Your task to perform on an android device: Clear the cart on walmart.com. Search for macbook pro on walmart.com, select the first entry, add it to the cart, then select checkout. Image 0: 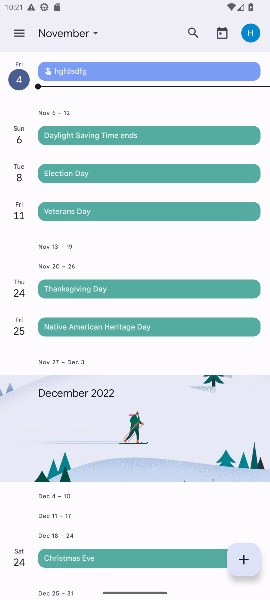
Step 0: press home button
Your task to perform on an android device: Clear the cart on walmart.com. Search for macbook pro on walmart.com, select the first entry, add it to the cart, then select checkout. Image 1: 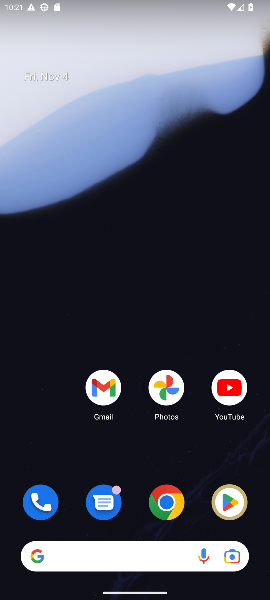
Step 1: drag from (130, 438) to (130, 75)
Your task to perform on an android device: Clear the cart on walmart.com. Search for macbook pro on walmart.com, select the first entry, add it to the cart, then select checkout. Image 2: 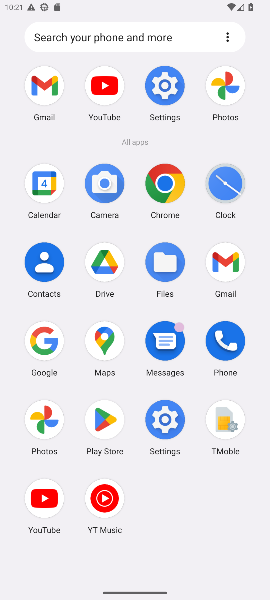
Step 2: click (169, 188)
Your task to perform on an android device: Clear the cart on walmart.com. Search for macbook pro on walmart.com, select the first entry, add it to the cart, then select checkout. Image 3: 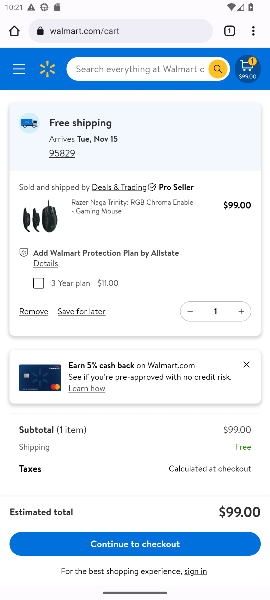
Step 3: click (37, 311)
Your task to perform on an android device: Clear the cart on walmart.com. Search for macbook pro on walmart.com, select the first entry, add it to the cart, then select checkout. Image 4: 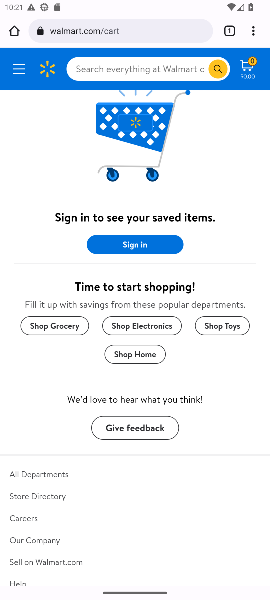
Step 4: click (150, 66)
Your task to perform on an android device: Clear the cart on walmart.com. Search for macbook pro on walmart.com, select the first entry, add it to the cart, then select checkout. Image 5: 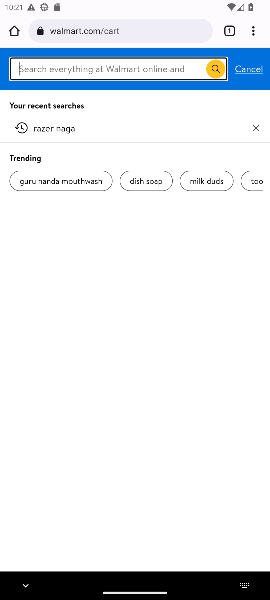
Step 5: type "macbook pro"
Your task to perform on an android device: Clear the cart on walmart.com. Search for macbook pro on walmart.com, select the first entry, add it to the cart, then select checkout. Image 6: 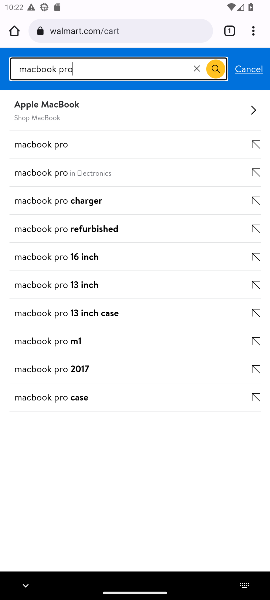
Step 6: press enter
Your task to perform on an android device: Clear the cart on walmart.com. Search for macbook pro on walmart.com, select the first entry, add it to the cart, then select checkout. Image 7: 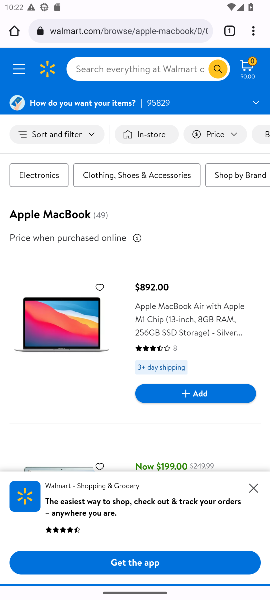
Step 7: task complete